Your task to perform on an android device: turn off location Image 0: 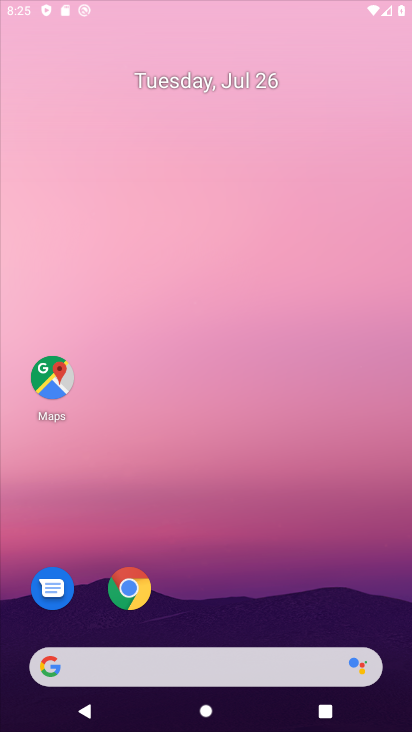
Step 0: drag from (118, 14) to (210, 93)
Your task to perform on an android device: turn off location Image 1: 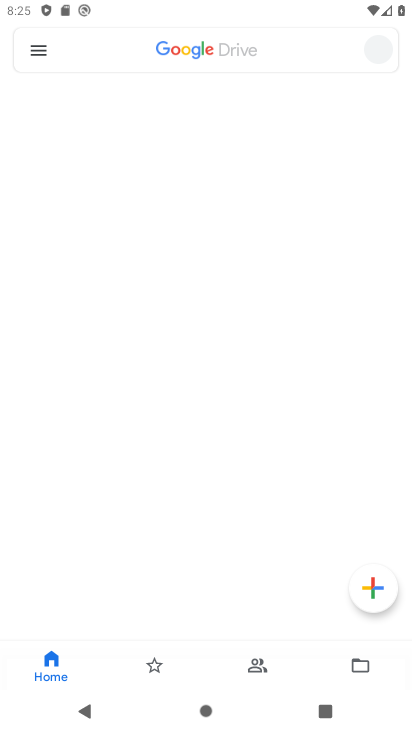
Step 1: drag from (208, 237) to (174, 8)
Your task to perform on an android device: turn off location Image 2: 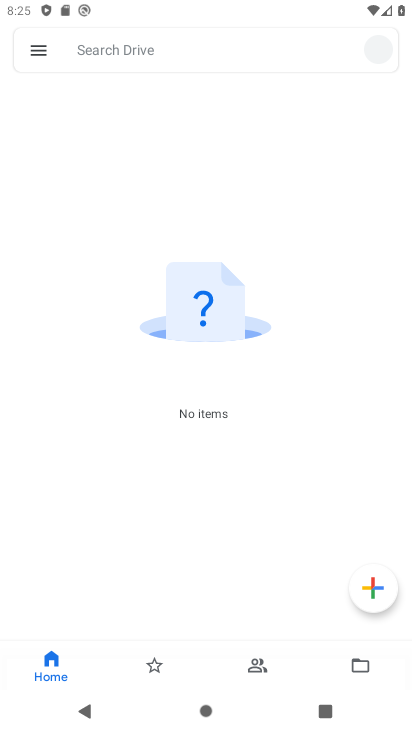
Step 2: drag from (204, 289) to (189, 19)
Your task to perform on an android device: turn off location Image 3: 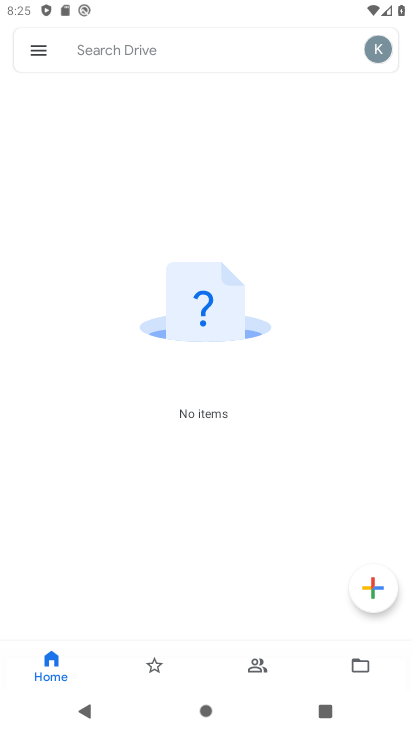
Step 3: press back button
Your task to perform on an android device: turn off location Image 4: 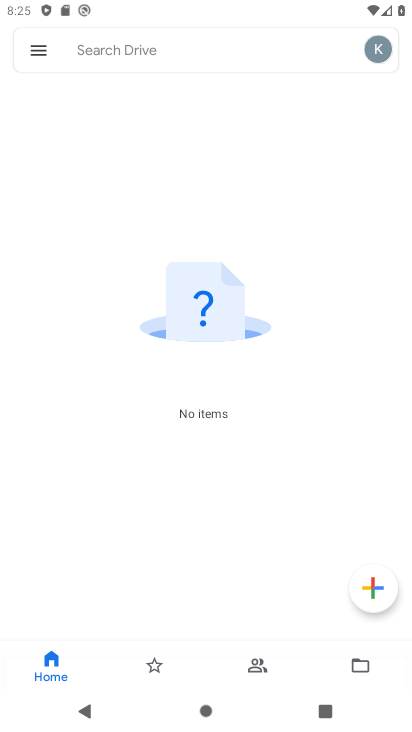
Step 4: press back button
Your task to perform on an android device: turn off location Image 5: 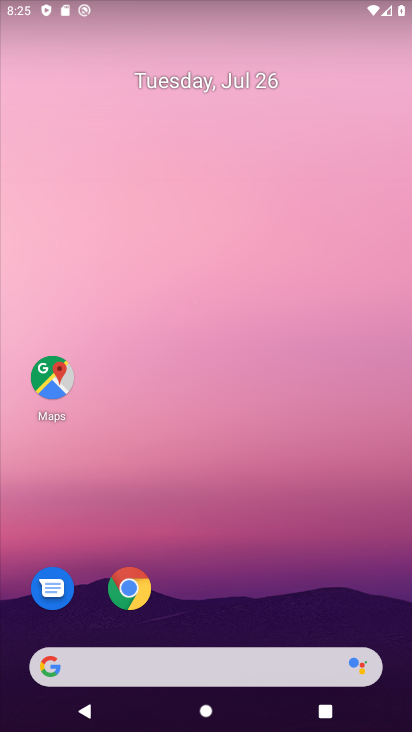
Step 5: drag from (262, 683) to (114, 68)
Your task to perform on an android device: turn off location Image 6: 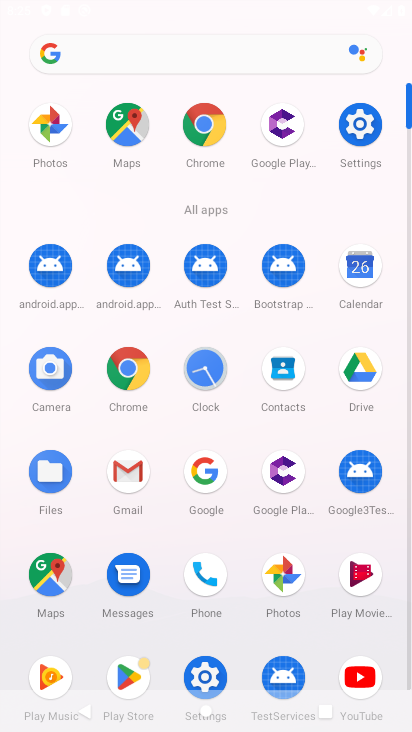
Step 6: drag from (128, 399) to (114, 124)
Your task to perform on an android device: turn off location Image 7: 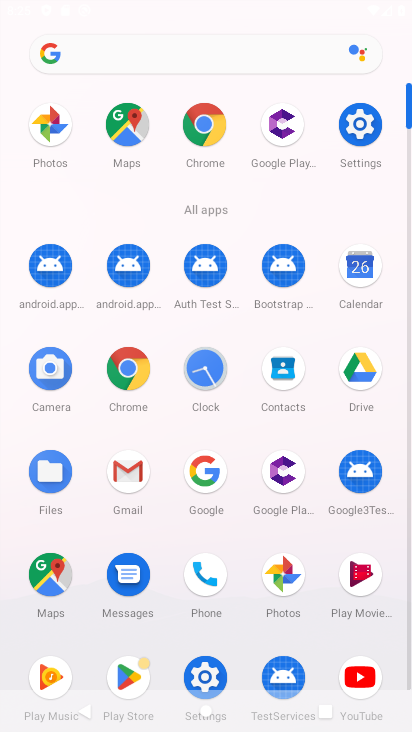
Step 7: click (358, 120)
Your task to perform on an android device: turn off location Image 8: 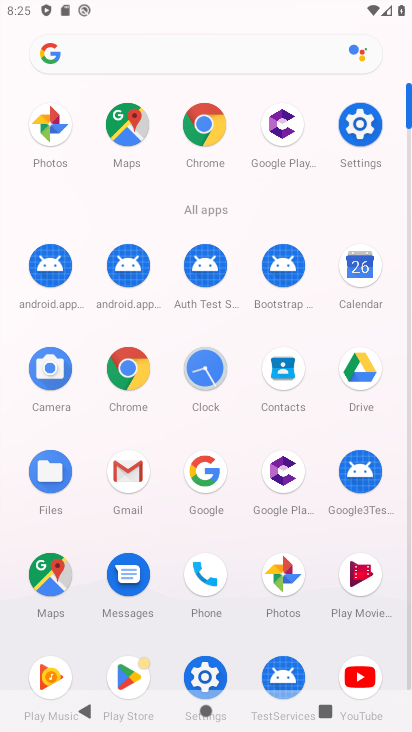
Step 8: click (360, 119)
Your task to perform on an android device: turn off location Image 9: 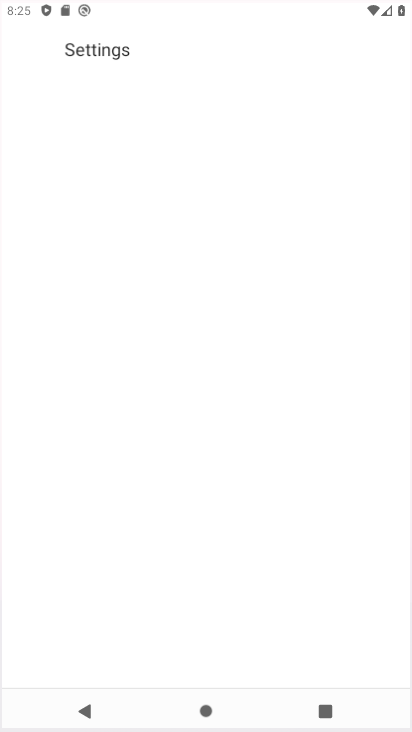
Step 9: click (361, 118)
Your task to perform on an android device: turn off location Image 10: 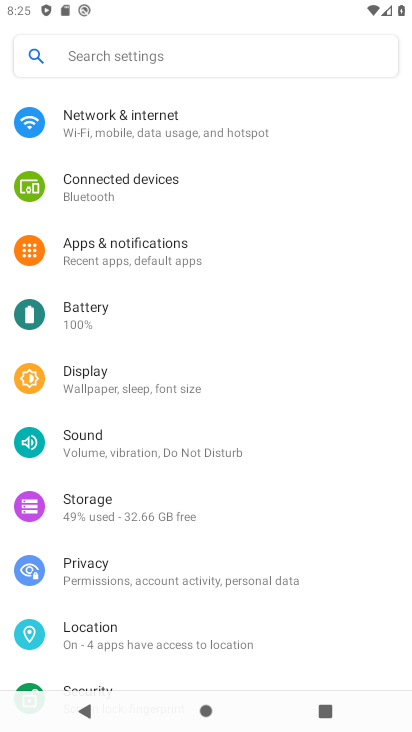
Step 10: click (97, 629)
Your task to perform on an android device: turn off location Image 11: 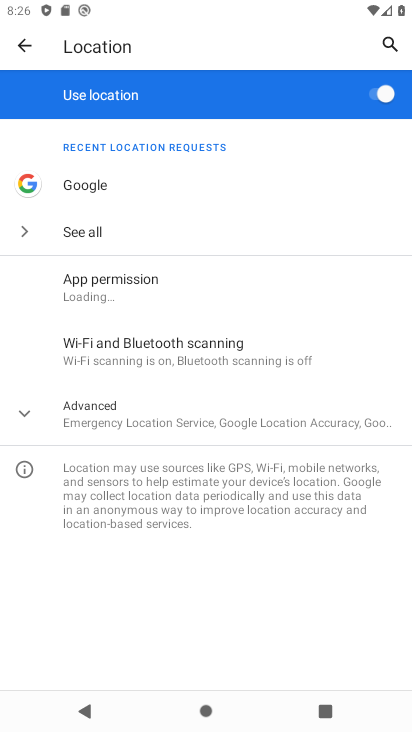
Step 11: click (398, 89)
Your task to perform on an android device: turn off location Image 12: 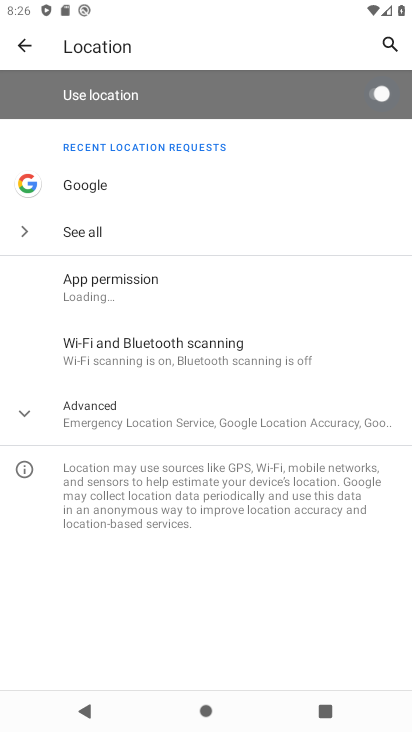
Step 12: click (394, 90)
Your task to perform on an android device: turn off location Image 13: 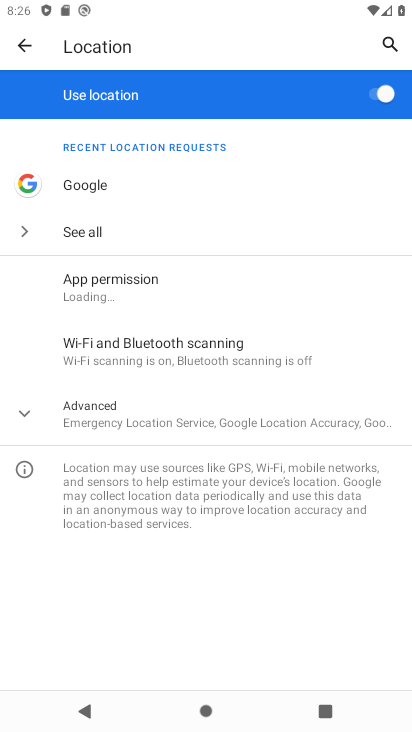
Step 13: click (390, 98)
Your task to perform on an android device: turn off location Image 14: 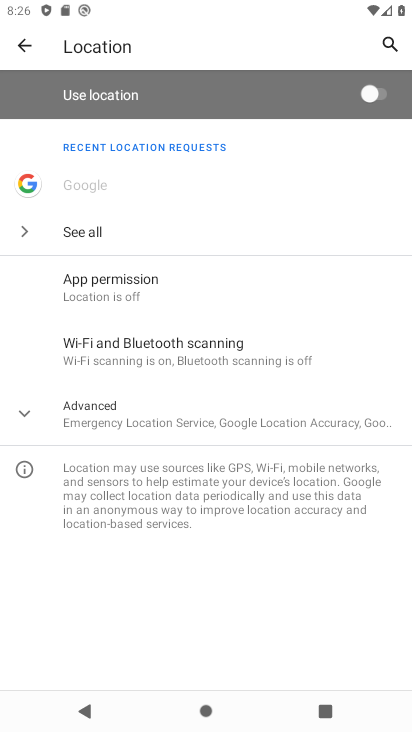
Step 14: task complete